Your task to perform on an android device: Go to battery settings Image 0: 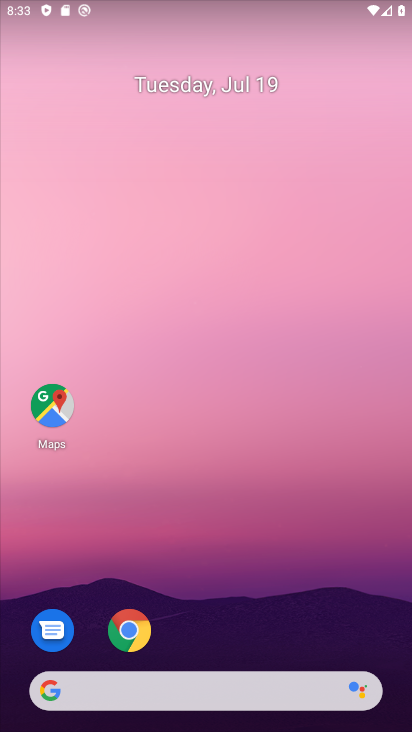
Step 0: drag from (189, 696) to (256, 173)
Your task to perform on an android device: Go to battery settings Image 1: 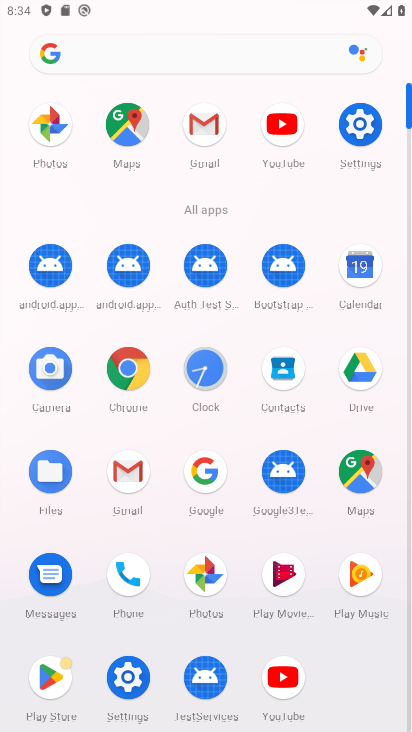
Step 1: click (360, 123)
Your task to perform on an android device: Go to battery settings Image 2: 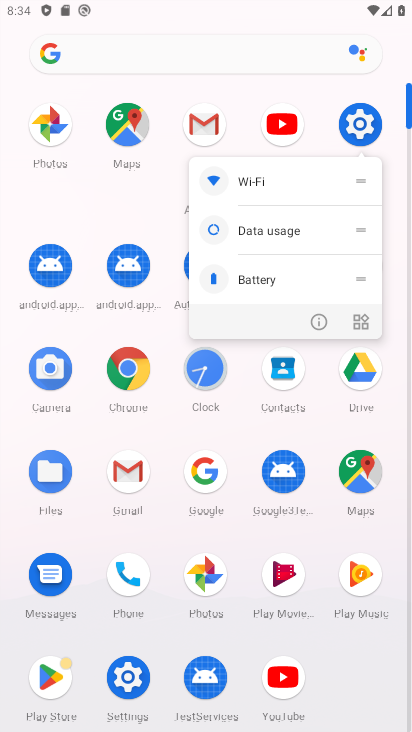
Step 2: click (360, 123)
Your task to perform on an android device: Go to battery settings Image 3: 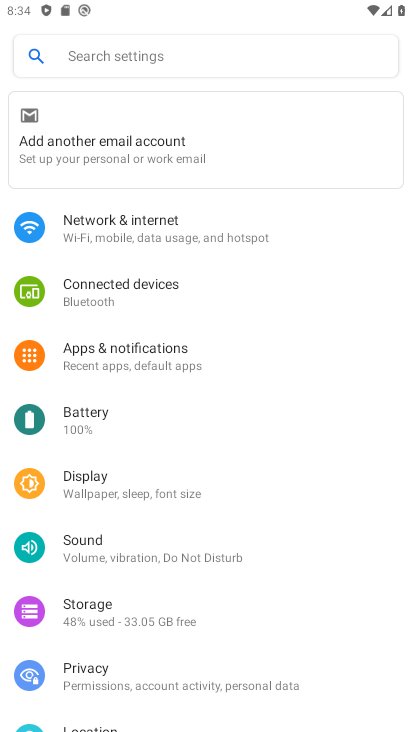
Step 3: click (103, 422)
Your task to perform on an android device: Go to battery settings Image 4: 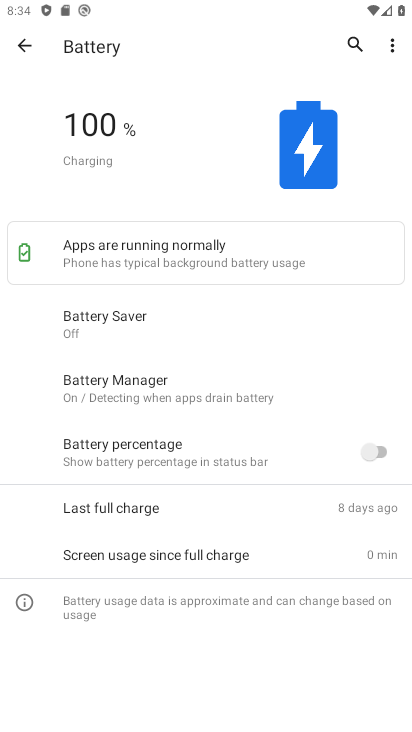
Step 4: task complete